Your task to perform on an android device: turn on bluetooth scan Image 0: 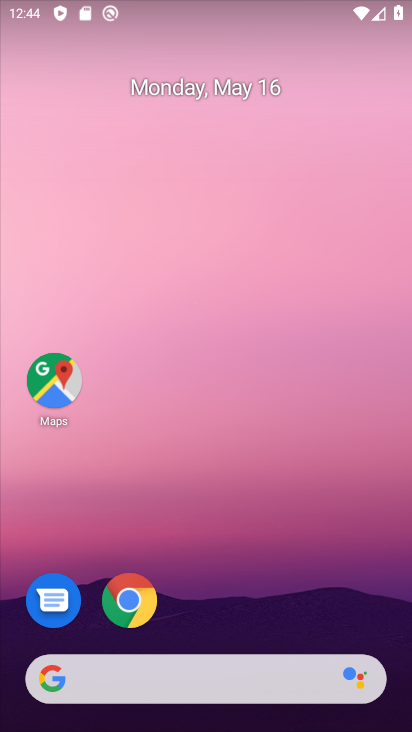
Step 0: drag from (380, 622) to (370, 115)
Your task to perform on an android device: turn on bluetooth scan Image 1: 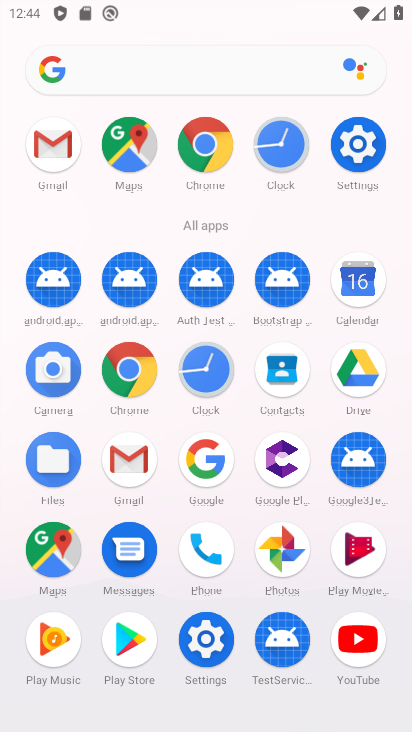
Step 1: click (363, 148)
Your task to perform on an android device: turn on bluetooth scan Image 2: 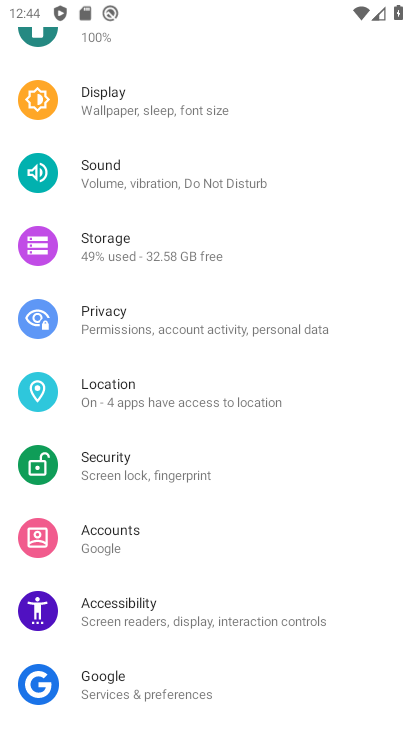
Step 2: drag from (370, 258) to (366, 514)
Your task to perform on an android device: turn on bluetooth scan Image 3: 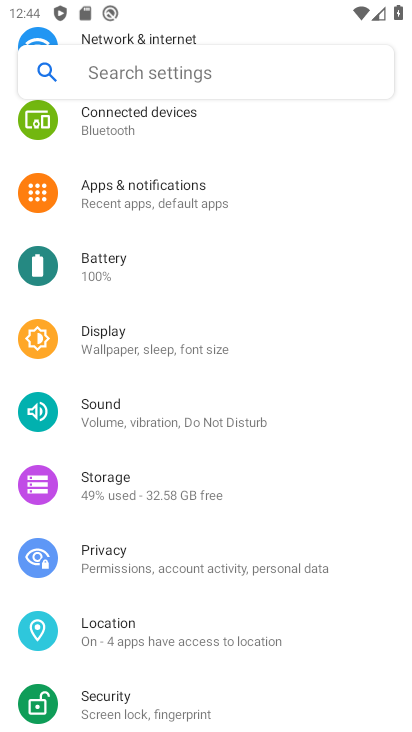
Step 3: drag from (372, 229) to (347, 556)
Your task to perform on an android device: turn on bluetooth scan Image 4: 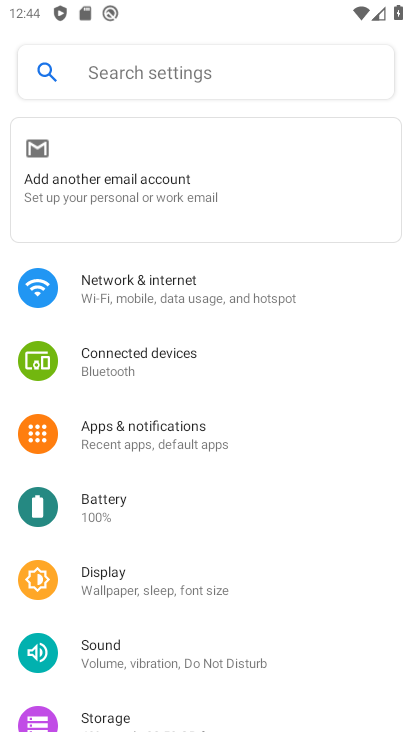
Step 4: drag from (329, 652) to (336, 464)
Your task to perform on an android device: turn on bluetooth scan Image 5: 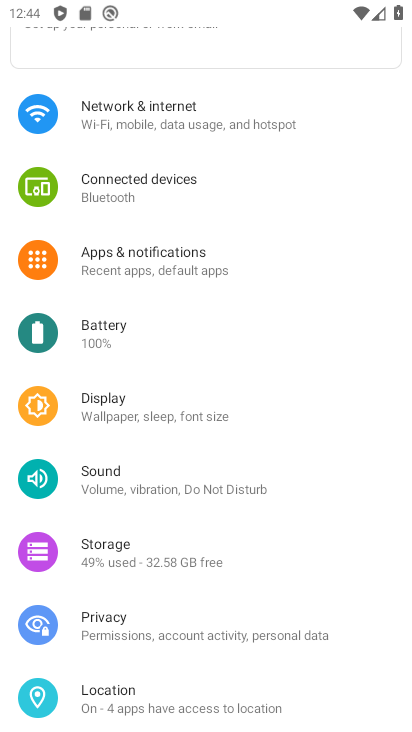
Step 5: drag from (341, 682) to (352, 459)
Your task to perform on an android device: turn on bluetooth scan Image 6: 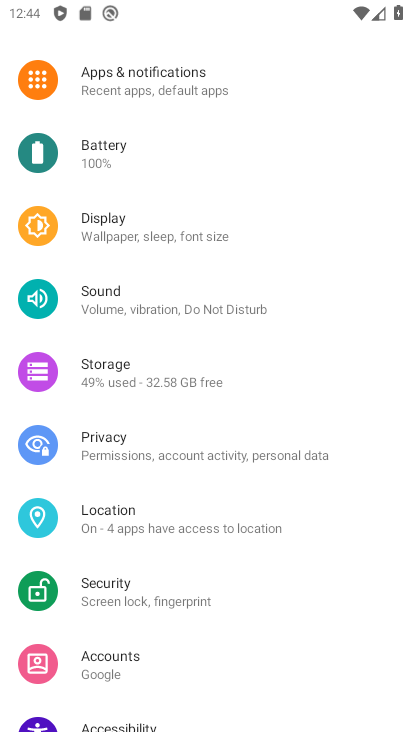
Step 6: click (272, 520)
Your task to perform on an android device: turn on bluetooth scan Image 7: 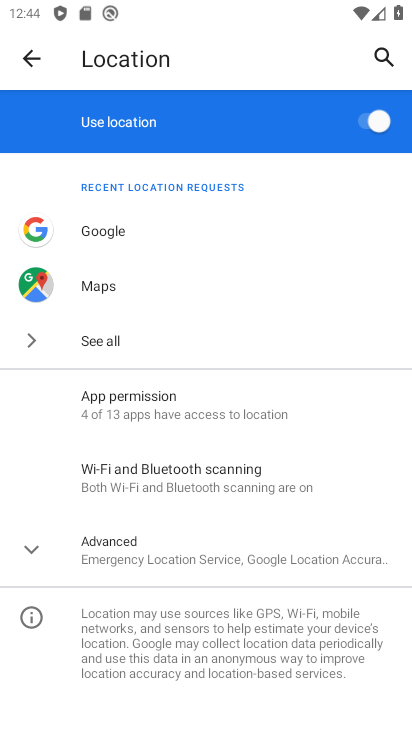
Step 7: click (260, 485)
Your task to perform on an android device: turn on bluetooth scan Image 8: 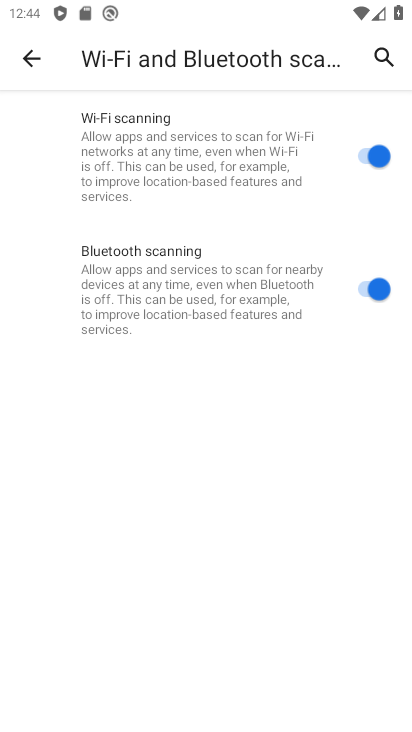
Step 8: task complete